Your task to perform on an android device: find snoozed emails in the gmail app Image 0: 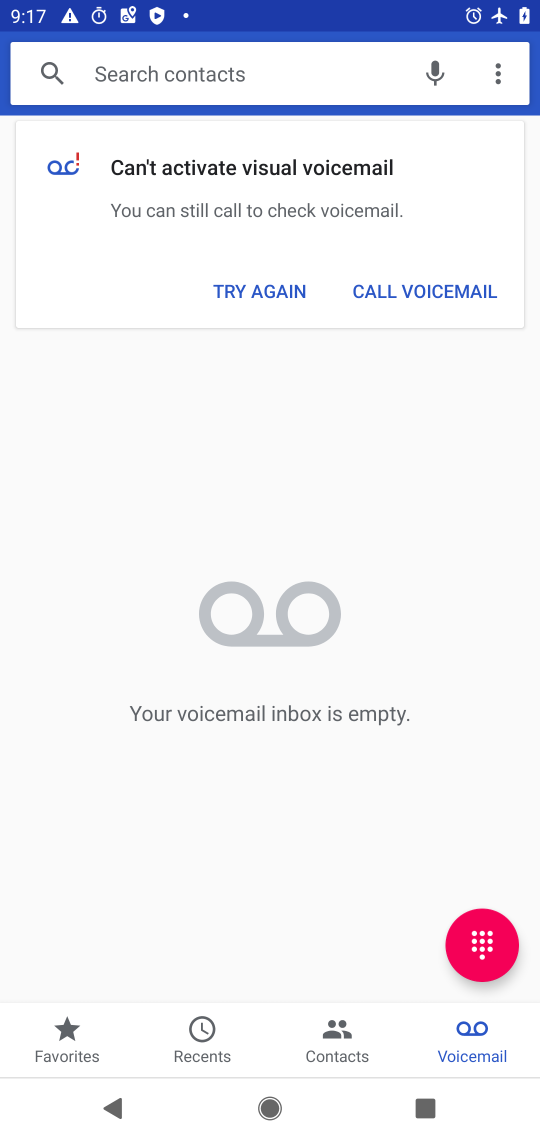
Step 0: press home button
Your task to perform on an android device: find snoozed emails in the gmail app Image 1: 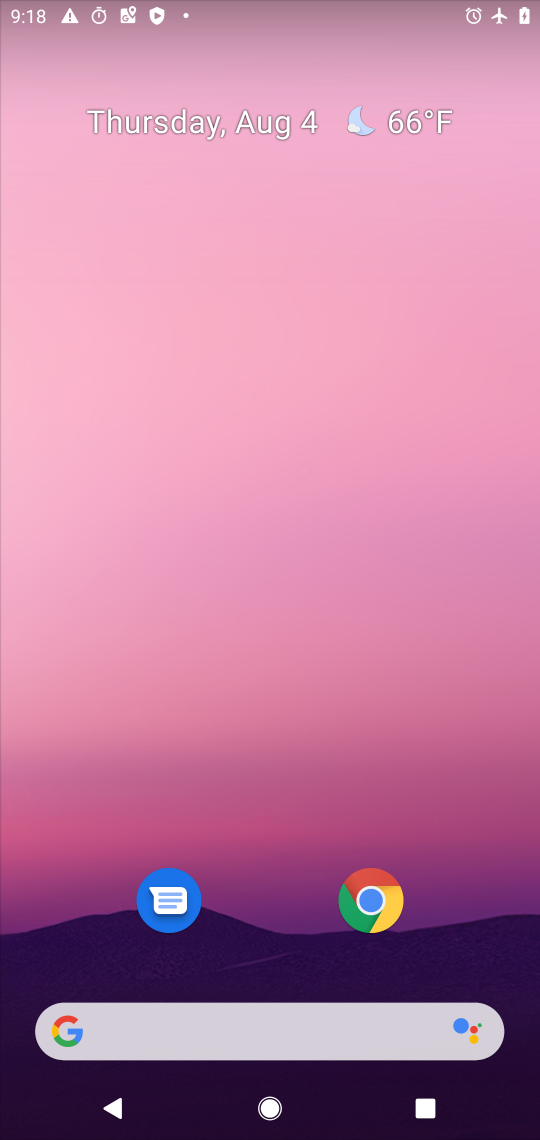
Step 1: drag from (235, 1017) to (197, 181)
Your task to perform on an android device: find snoozed emails in the gmail app Image 2: 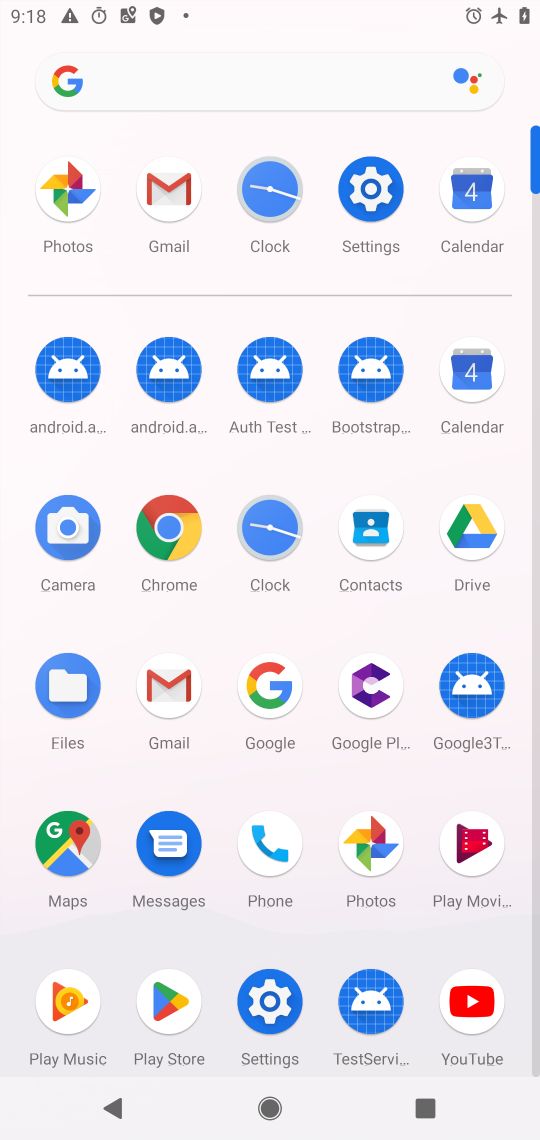
Step 2: click (168, 180)
Your task to perform on an android device: find snoozed emails in the gmail app Image 3: 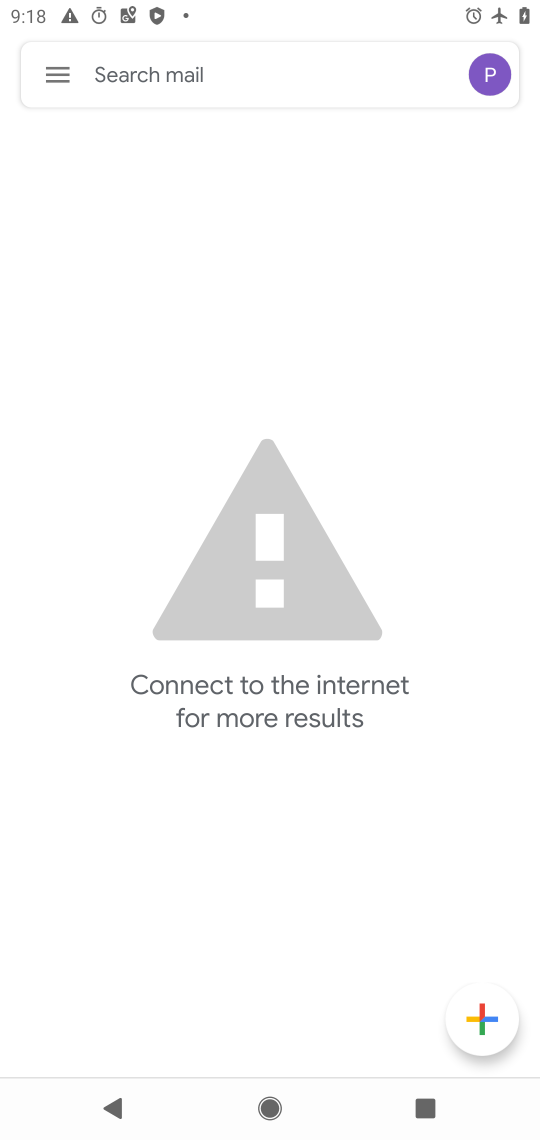
Step 3: click (62, 75)
Your task to perform on an android device: find snoozed emails in the gmail app Image 4: 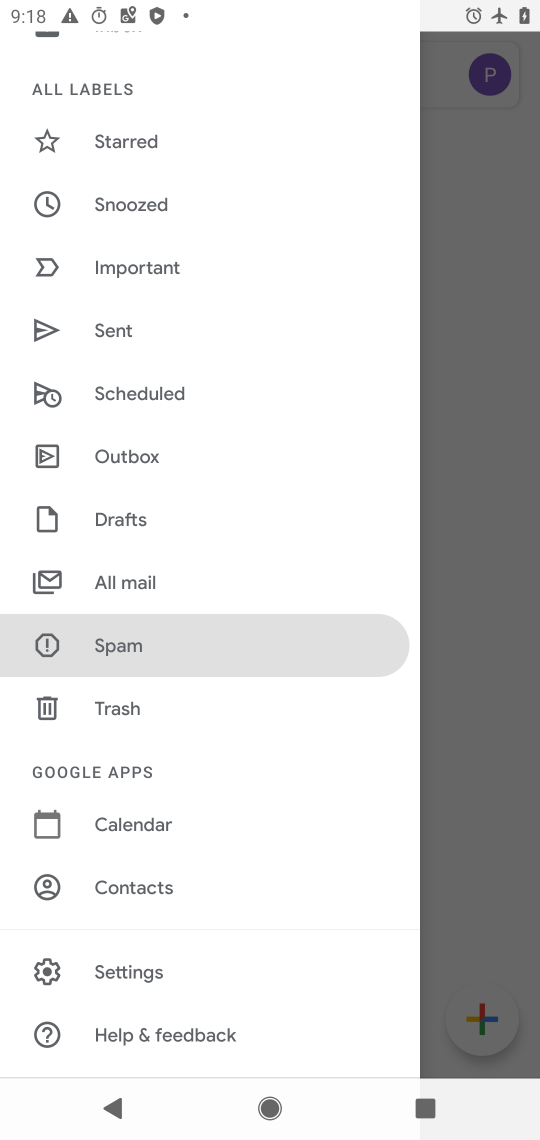
Step 4: click (133, 204)
Your task to perform on an android device: find snoozed emails in the gmail app Image 5: 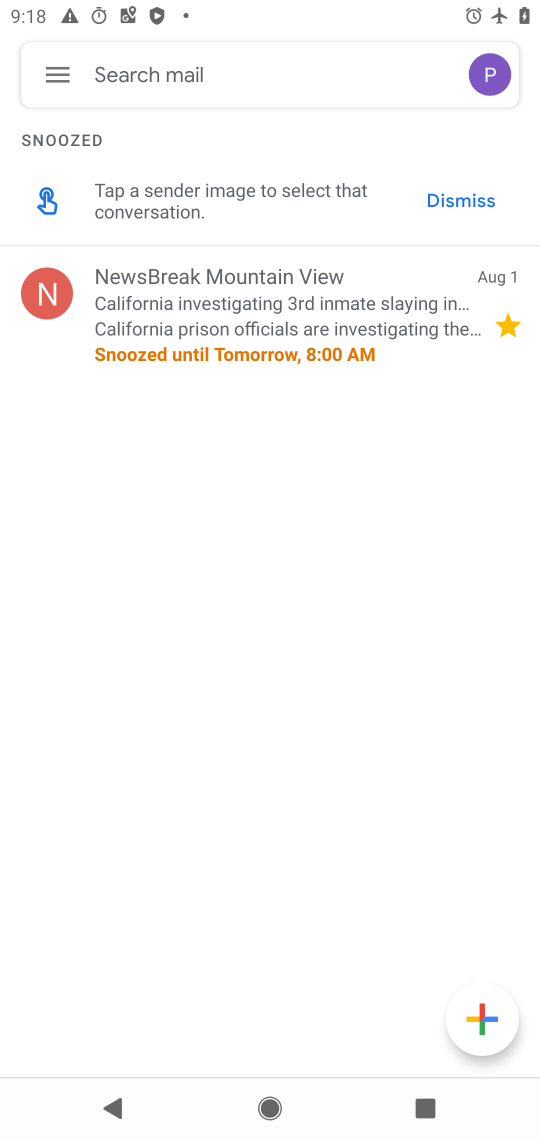
Step 5: task complete